Your task to perform on an android device: see creations saved in the google photos Image 0: 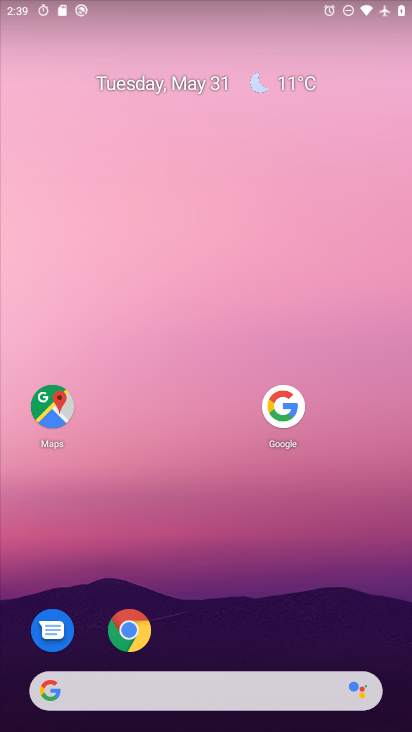
Step 0: press home button
Your task to perform on an android device: see creations saved in the google photos Image 1: 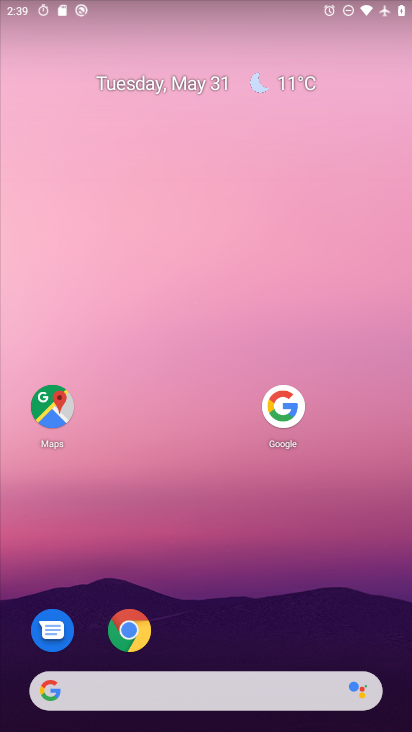
Step 1: drag from (160, 699) to (318, 108)
Your task to perform on an android device: see creations saved in the google photos Image 2: 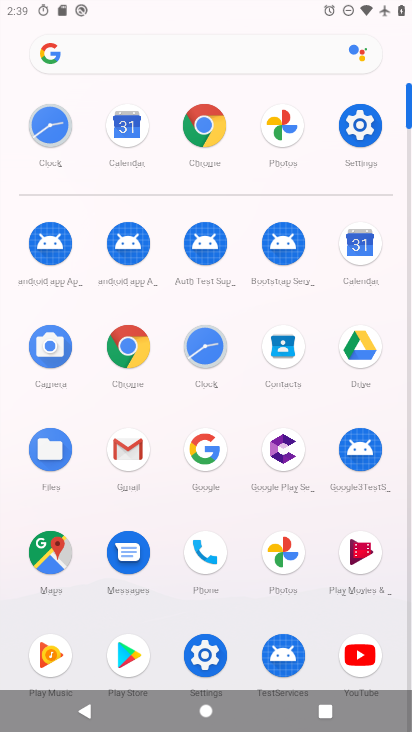
Step 2: click (280, 545)
Your task to perform on an android device: see creations saved in the google photos Image 3: 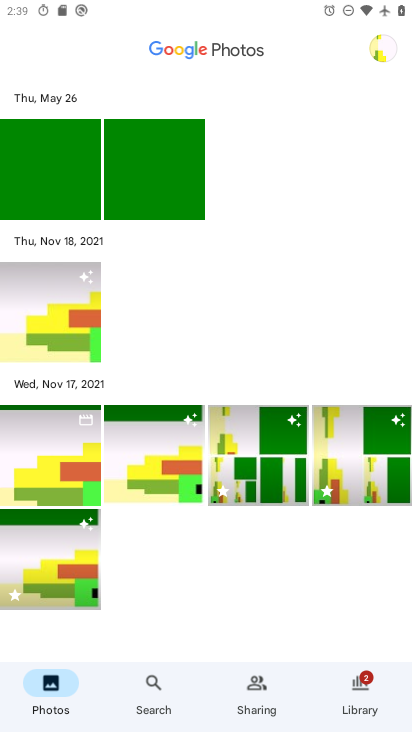
Step 3: click (161, 699)
Your task to perform on an android device: see creations saved in the google photos Image 4: 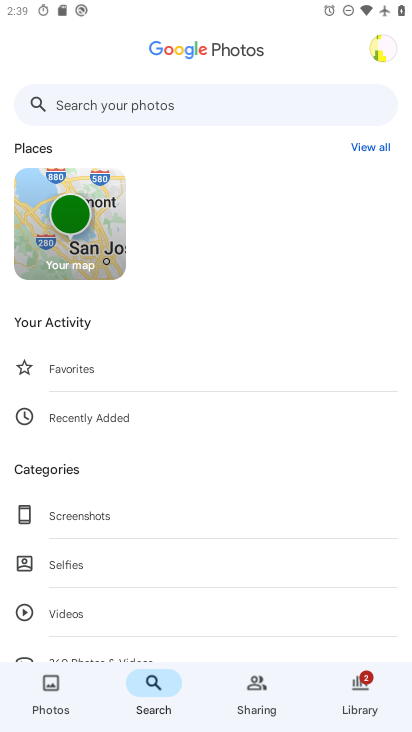
Step 4: drag from (132, 547) to (323, 264)
Your task to perform on an android device: see creations saved in the google photos Image 5: 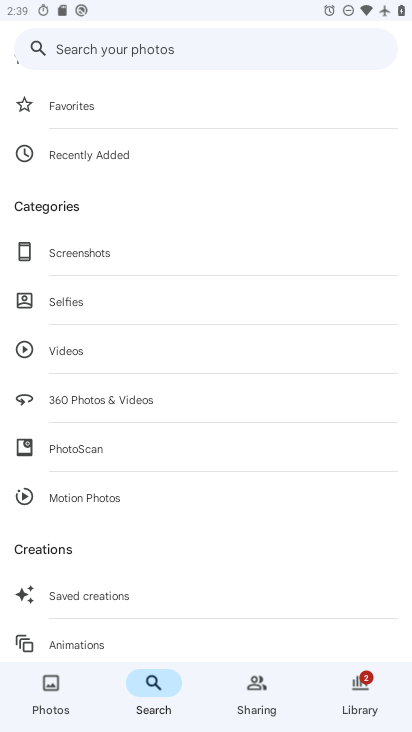
Step 5: click (113, 598)
Your task to perform on an android device: see creations saved in the google photos Image 6: 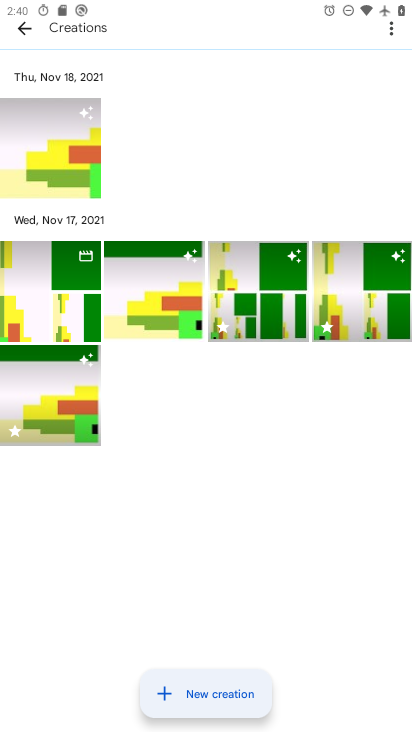
Step 6: task complete